Your task to perform on an android device: open app "Firefox Browser" Image 0: 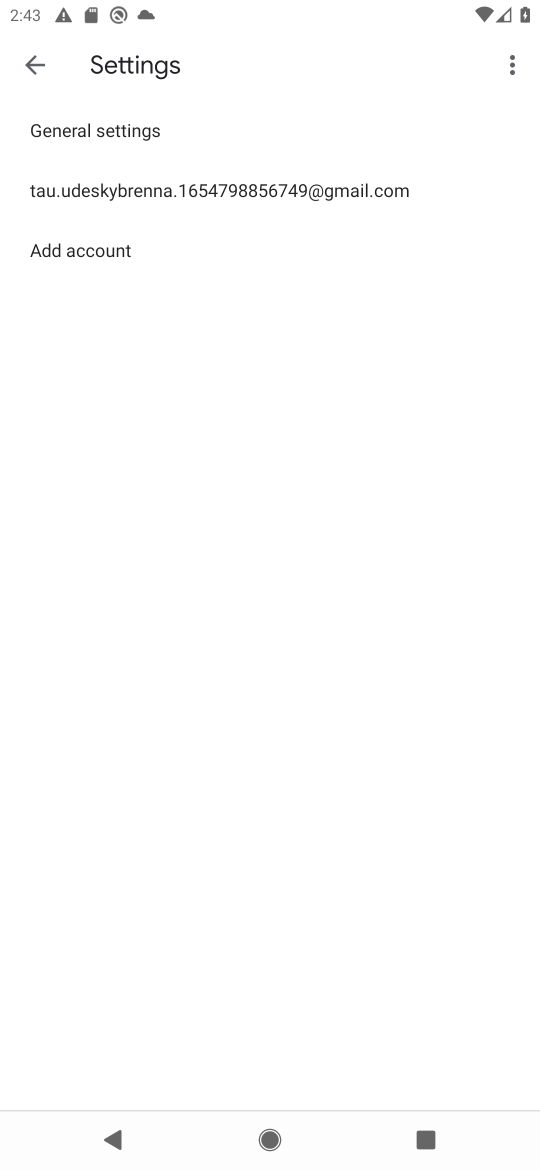
Step 0: press home button
Your task to perform on an android device: open app "Firefox Browser" Image 1: 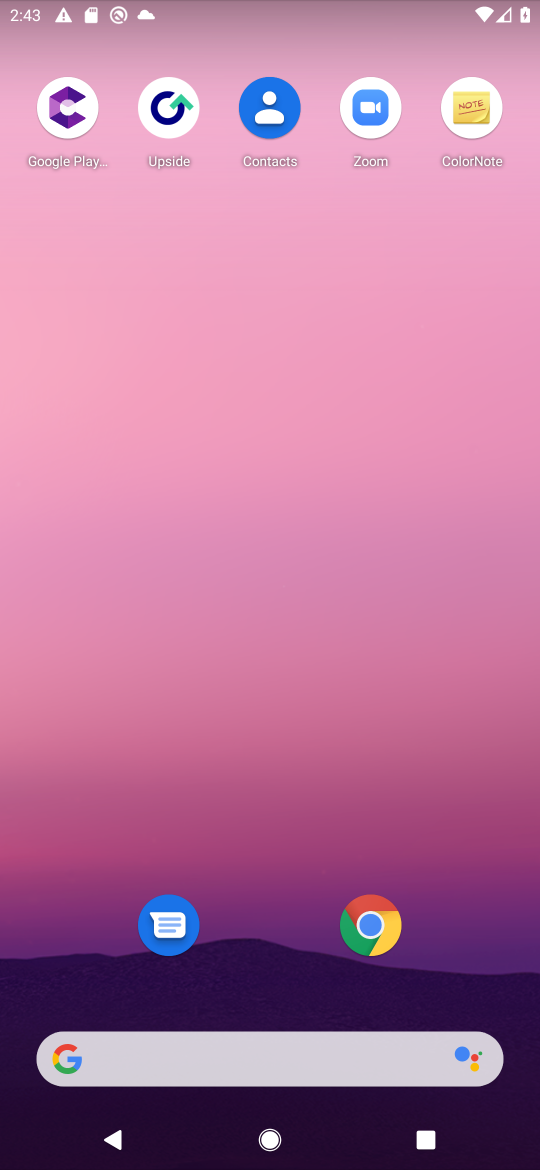
Step 1: drag from (265, 782) to (215, 1)
Your task to perform on an android device: open app "Firefox Browser" Image 2: 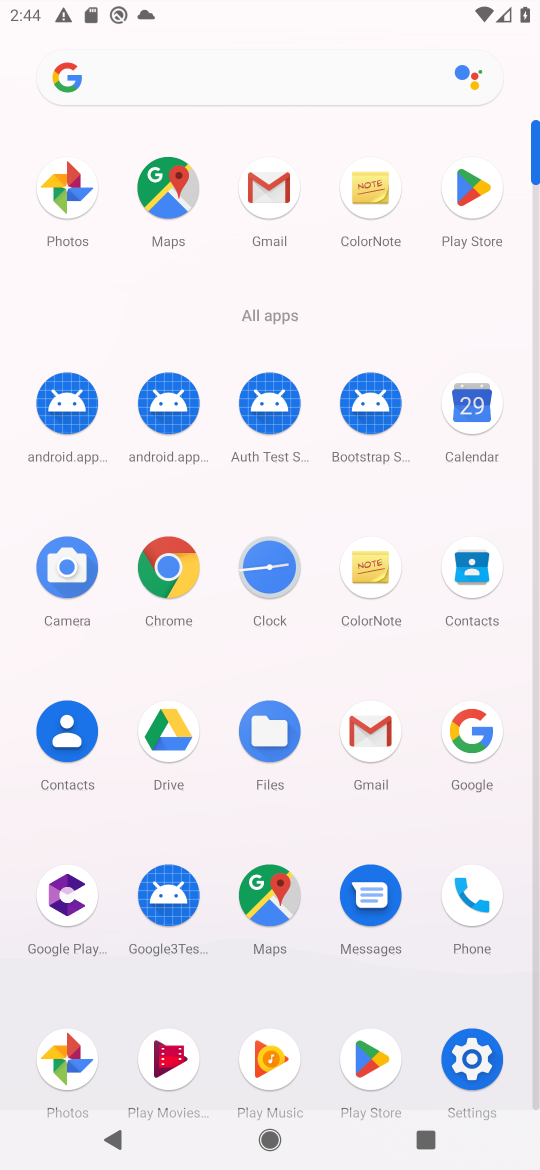
Step 2: click (464, 189)
Your task to perform on an android device: open app "Firefox Browser" Image 3: 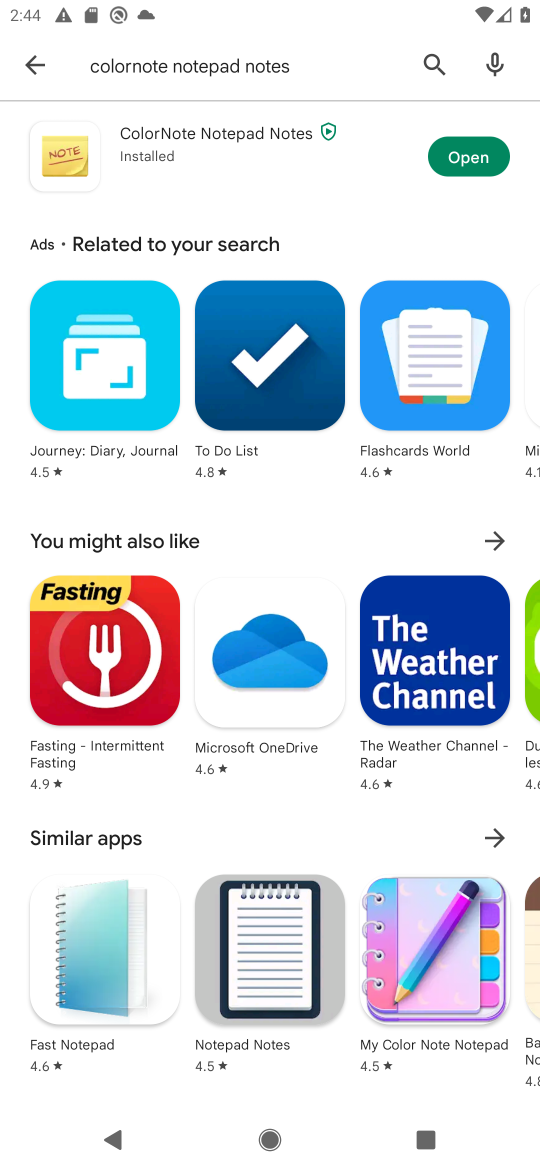
Step 3: click (439, 52)
Your task to perform on an android device: open app "Firefox Browser" Image 4: 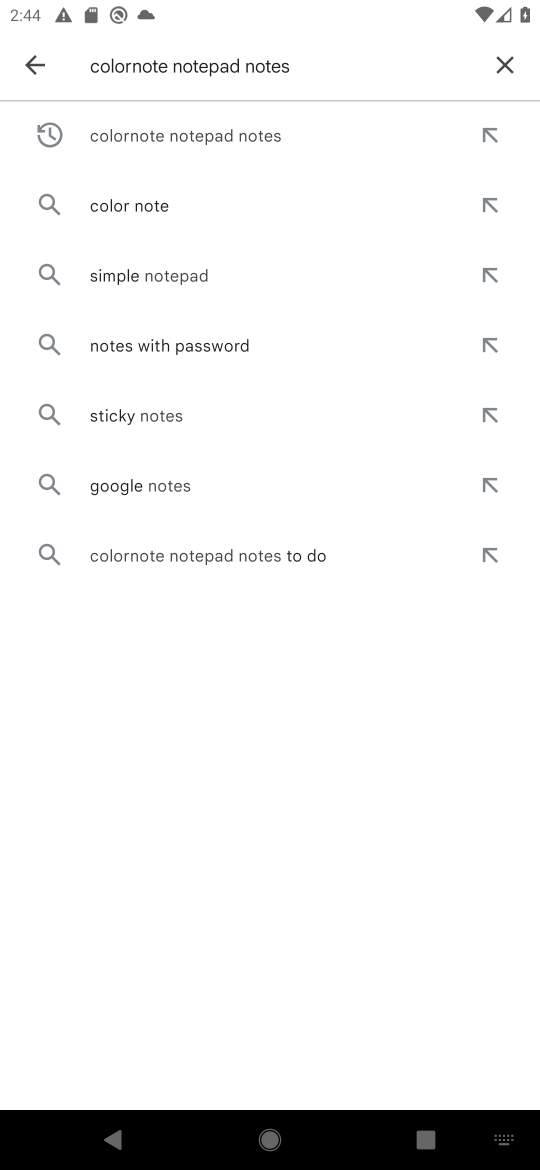
Step 4: click (487, 69)
Your task to perform on an android device: open app "Firefox Browser" Image 5: 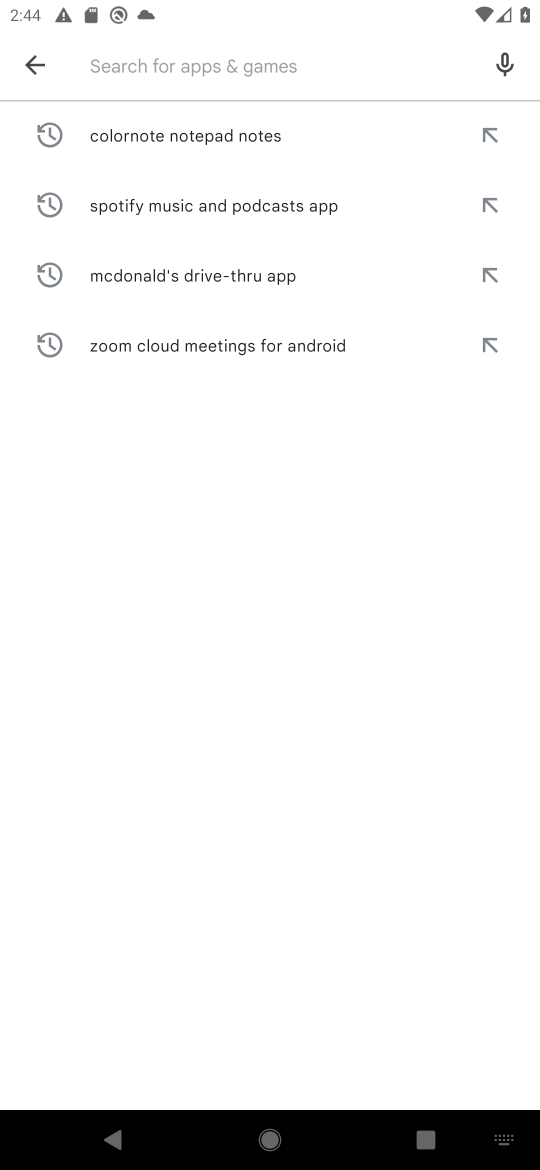
Step 5: type "Firefox Browser"
Your task to perform on an android device: open app "Firefox Browser" Image 6: 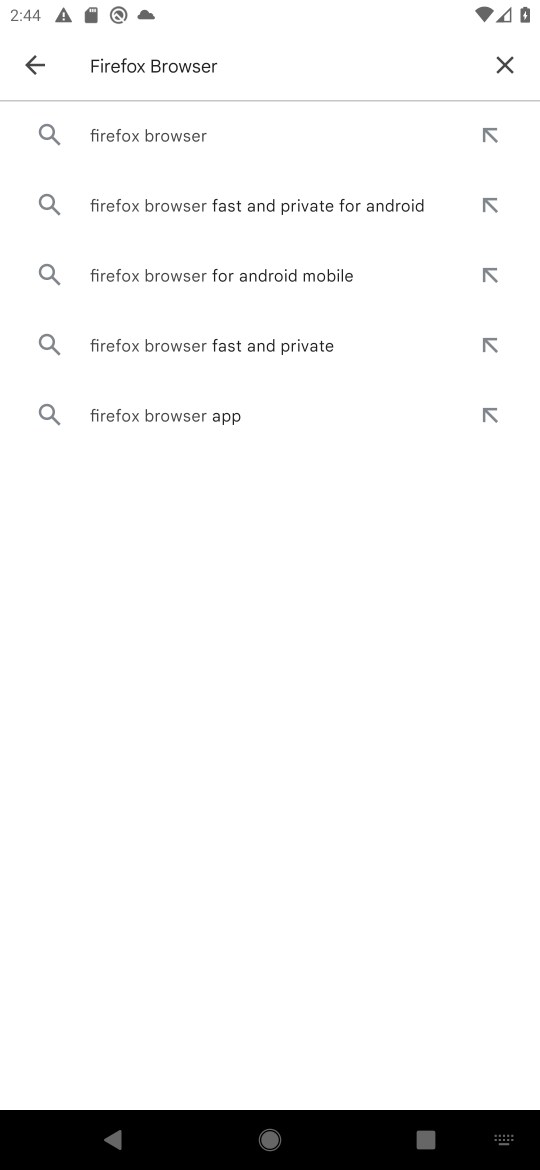
Step 6: click (195, 145)
Your task to perform on an android device: open app "Firefox Browser" Image 7: 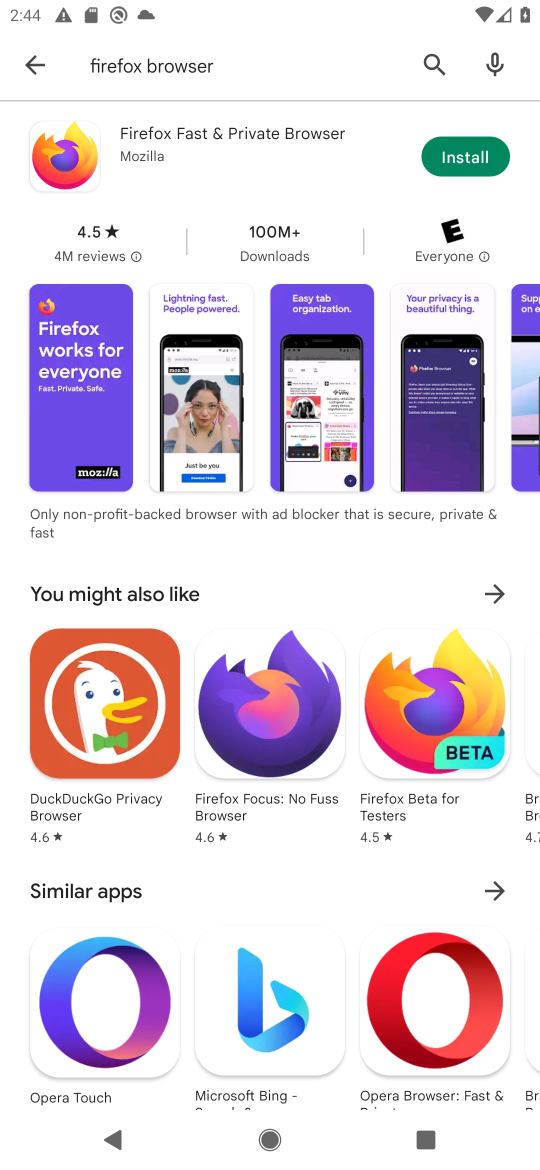
Step 7: task complete